Your task to perform on an android device: Open the stopwatch Image 0: 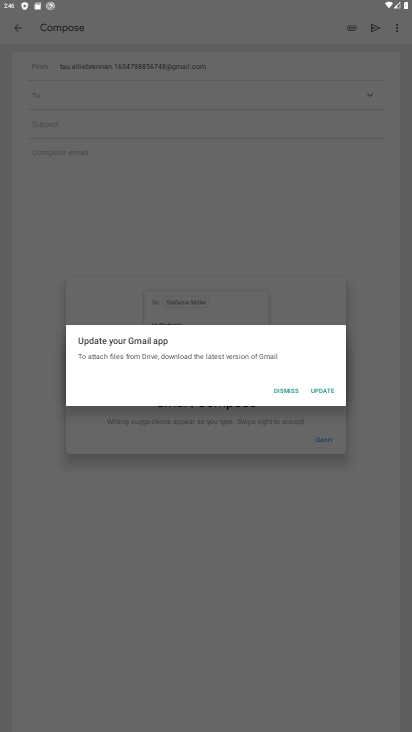
Step 0: press home button
Your task to perform on an android device: Open the stopwatch Image 1: 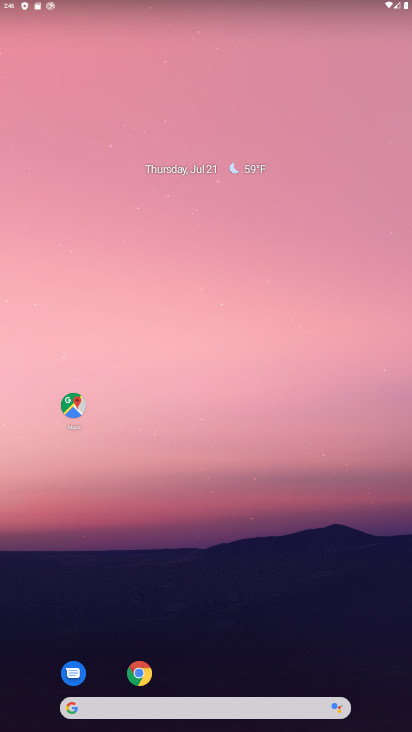
Step 1: drag from (381, 665) to (322, 93)
Your task to perform on an android device: Open the stopwatch Image 2: 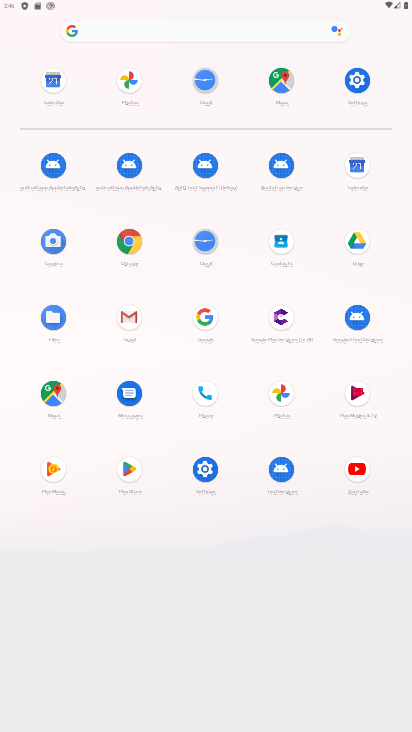
Step 2: click (204, 243)
Your task to perform on an android device: Open the stopwatch Image 3: 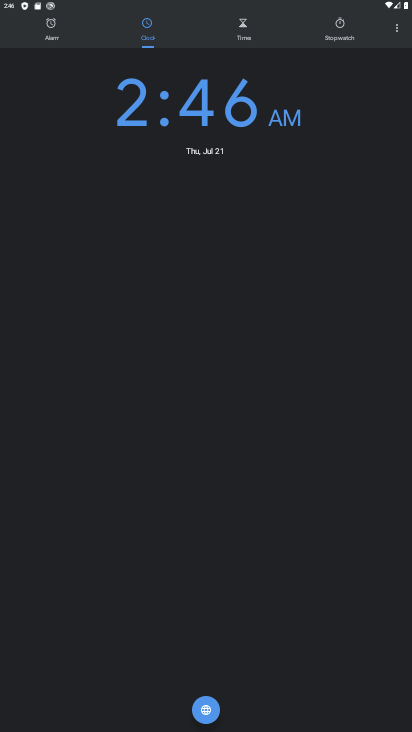
Step 3: click (338, 30)
Your task to perform on an android device: Open the stopwatch Image 4: 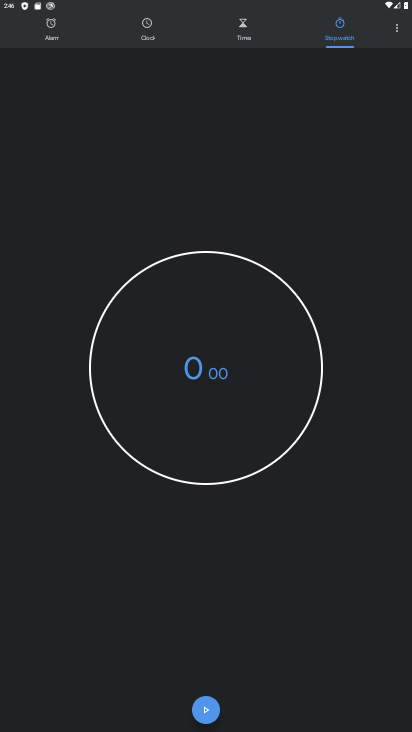
Step 4: task complete